Your task to perform on an android device: Open Google Chrome and open the bookmarks view Image 0: 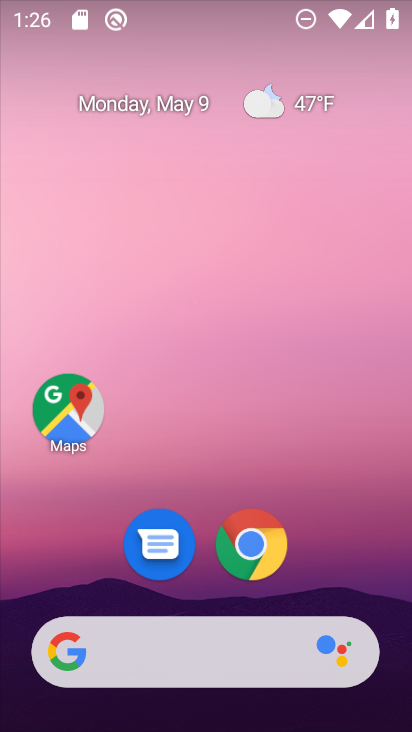
Step 0: drag from (394, 525) to (371, 0)
Your task to perform on an android device: Open Google Chrome and open the bookmarks view Image 1: 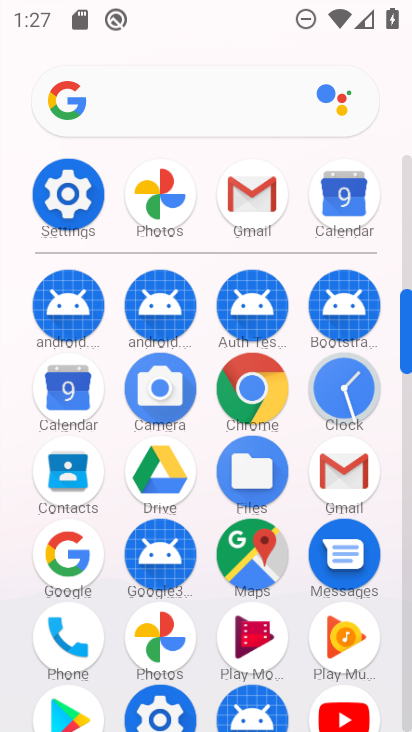
Step 1: click (259, 403)
Your task to perform on an android device: Open Google Chrome and open the bookmarks view Image 2: 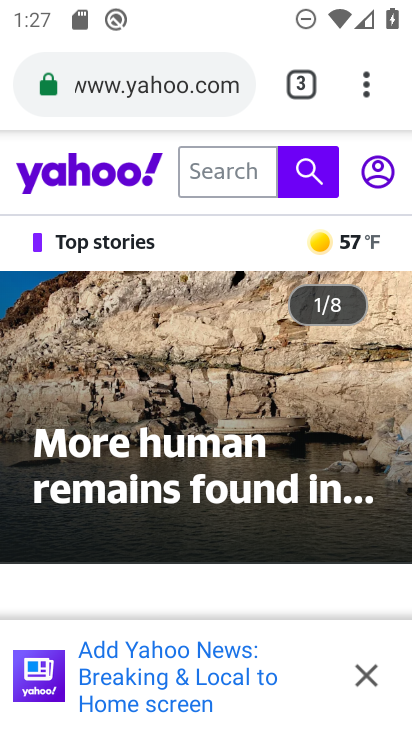
Step 2: drag from (376, 85) to (207, 308)
Your task to perform on an android device: Open Google Chrome and open the bookmarks view Image 3: 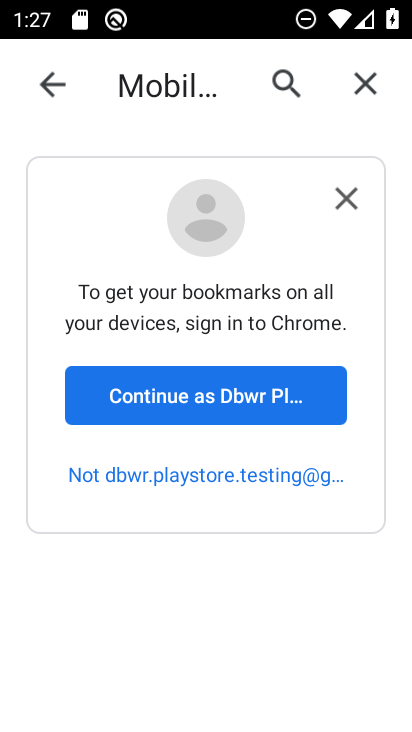
Step 3: click (255, 406)
Your task to perform on an android device: Open Google Chrome and open the bookmarks view Image 4: 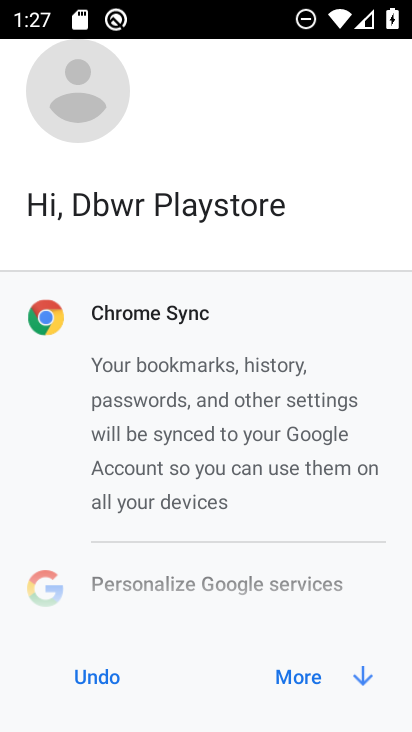
Step 4: click (298, 675)
Your task to perform on an android device: Open Google Chrome and open the bookmarks view Image 5: 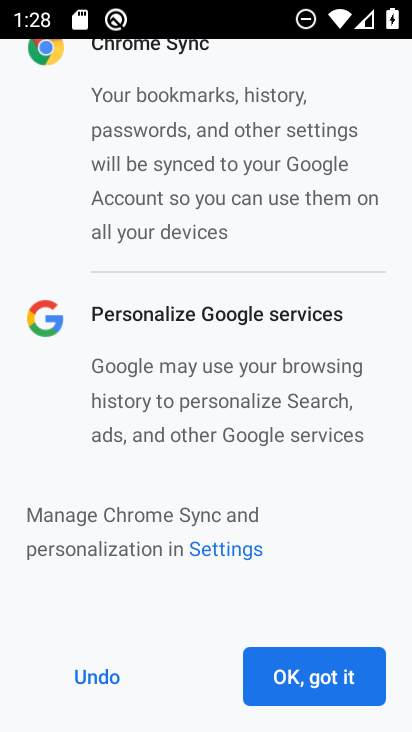
Step 5: click (298, 674)
Your task to perform on an android device: Open Google Chrome and open the bookmarks view Image 6: 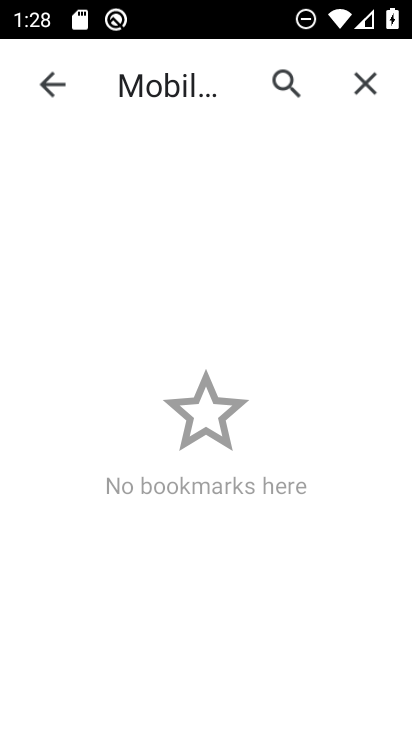
Step 6: task complete